Your task to perform on an android device: Open the Play Movies app and select the watchlist tab. Image 0: 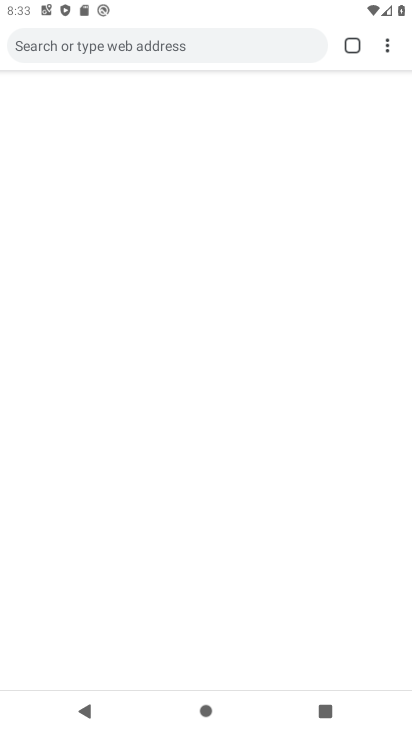
Step 0: drag from (26, 495) to (232, 327)
Your task to perform on an android device: Open the Play Movies app and select the watchlist tab. Image 1: 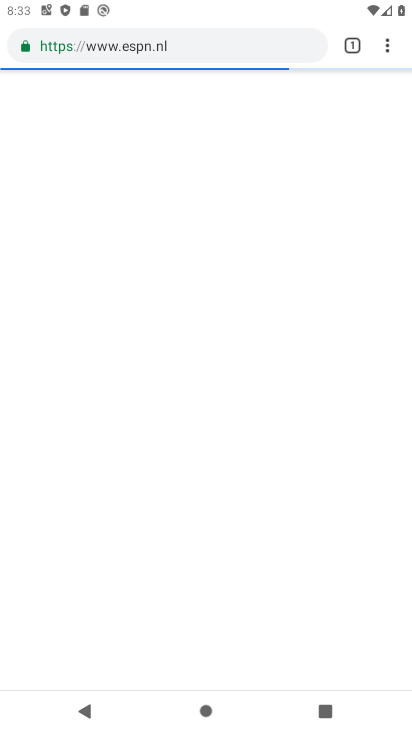
Step 1: press home button
Your task to perform on an android device: Open the Play Movies app and select the watchlist tab. Image 2: 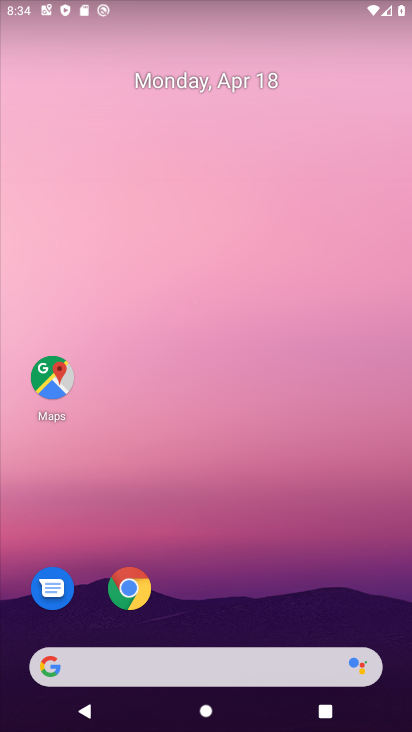
Step 2: drag from (32, 508) to (234, 103)
Your task to perform on an android device: Open the Play Movies app and select the watchlist tab. Image 3: 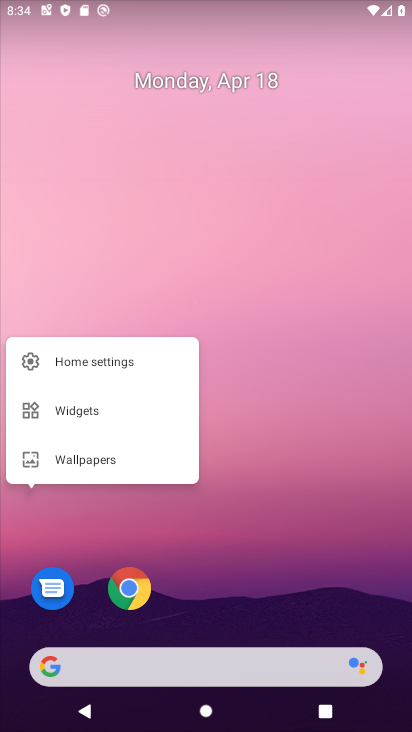
Step 3: click (296, 488)
Your task to perform on an android device: Open the Play Movies app and select the watchlist tab. Image 4: 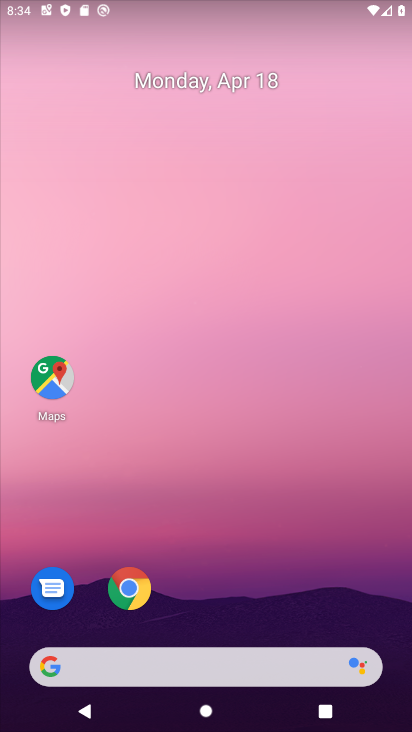
Step 4: drag from (256, 575) to (318, 33)
Your task to perform on an android device: Open the Play Movies app and select the watchlist tab. Image 5: 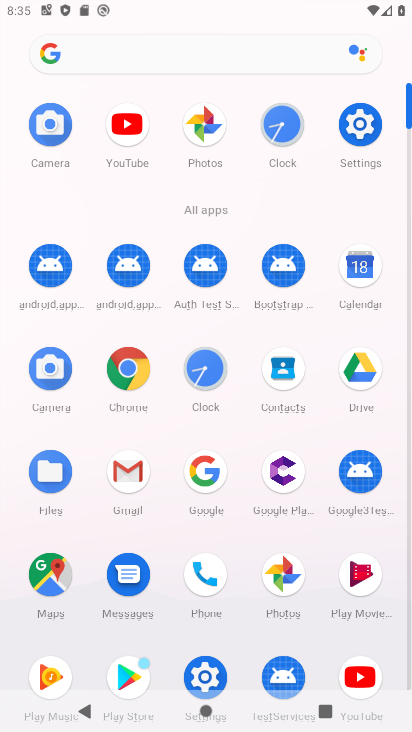
Step 5: click (379, 555)
Your task to perform on an android device: Open the Play Movies app and select the watchlist tab. Image 6: 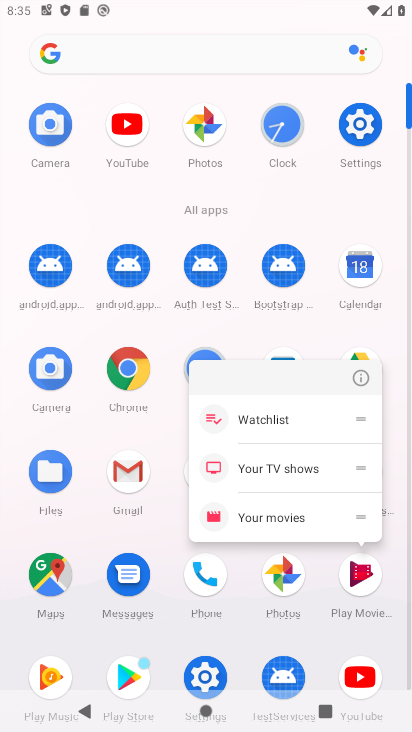
Step 6: click (367, 564)
Your task to perform on an android device: Open the Play Movies app and select the watchlist tab. Image 7: 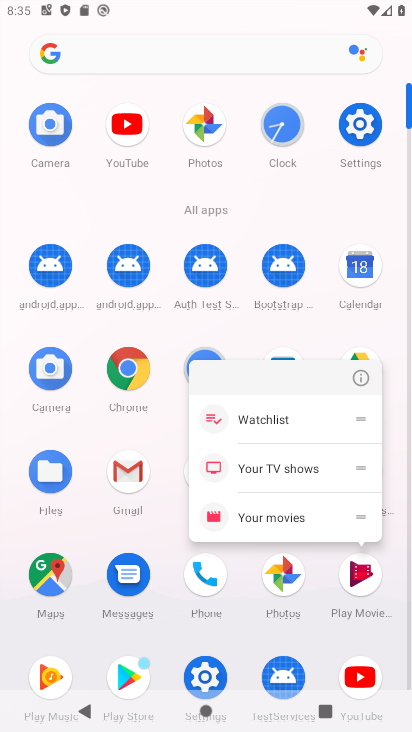
Step 7: click (367, 564)
Your task to perform on an android device: Open the Play Movies app and select the watchlist tab. Image 8: 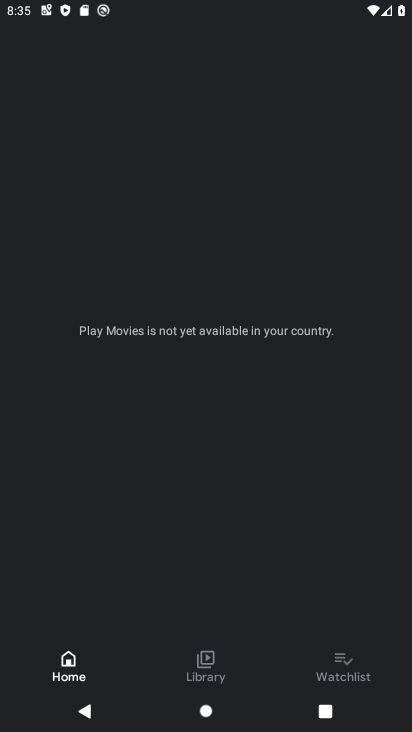
Step 8: click (347, 657)
Your task to perform on an android device: Open the Play Movies app and select the watchlist tab. Image 9: 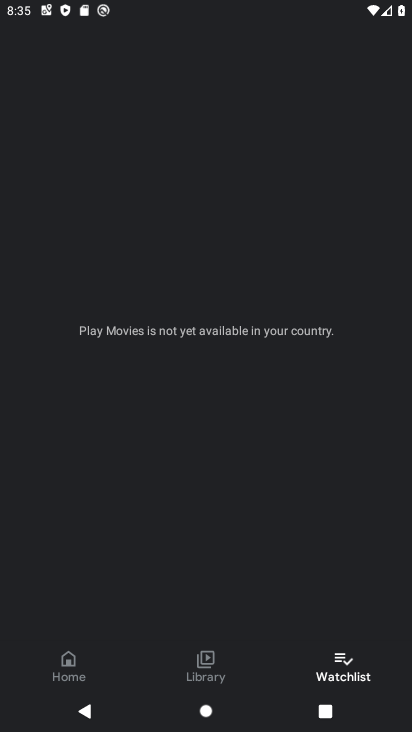
Step 9: task complete